Your task to perform on an android device: open app "Gboard" (install if not already installed) Image 0: 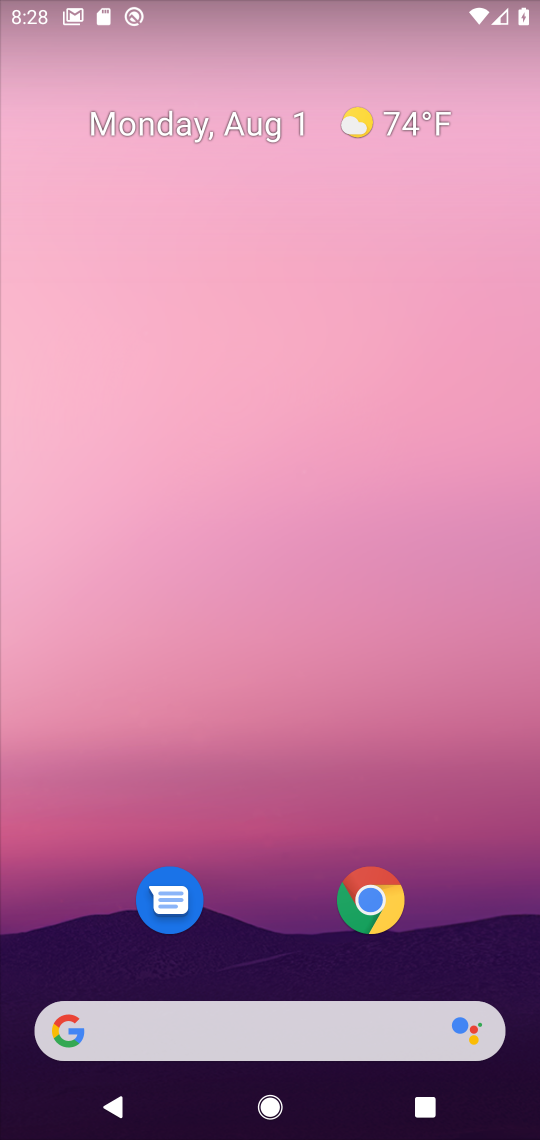
Step 0: drag from (282, 970) to (188, 127)
Your task to perform on an android device: open app "Gboard" (install if not already installed) Image 1: 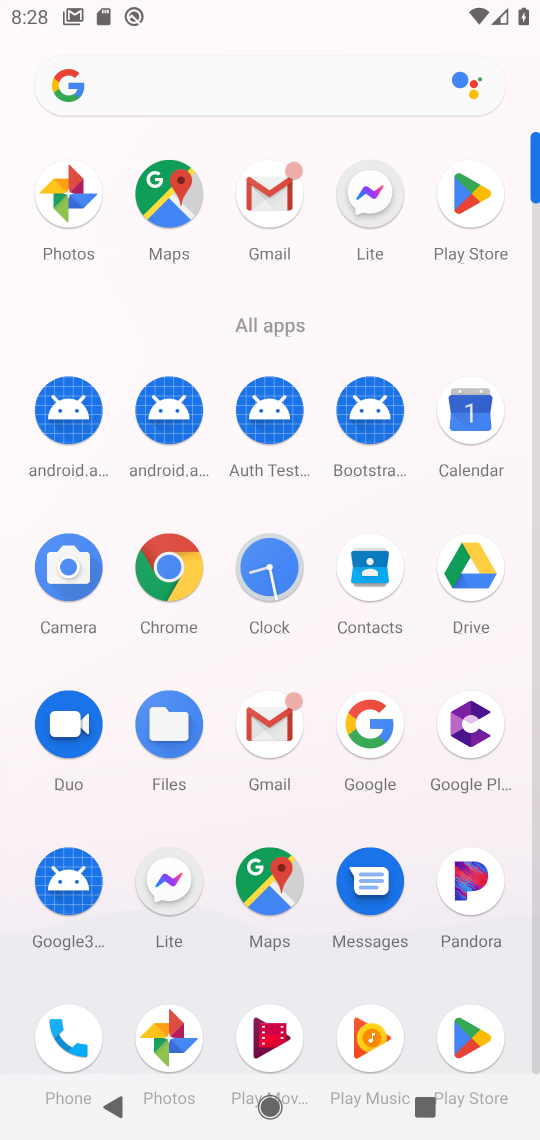
Step 1: click (453, 1052)
Your task to perform on an android device: open app "Gboard" (install if not already installed) Image 2: 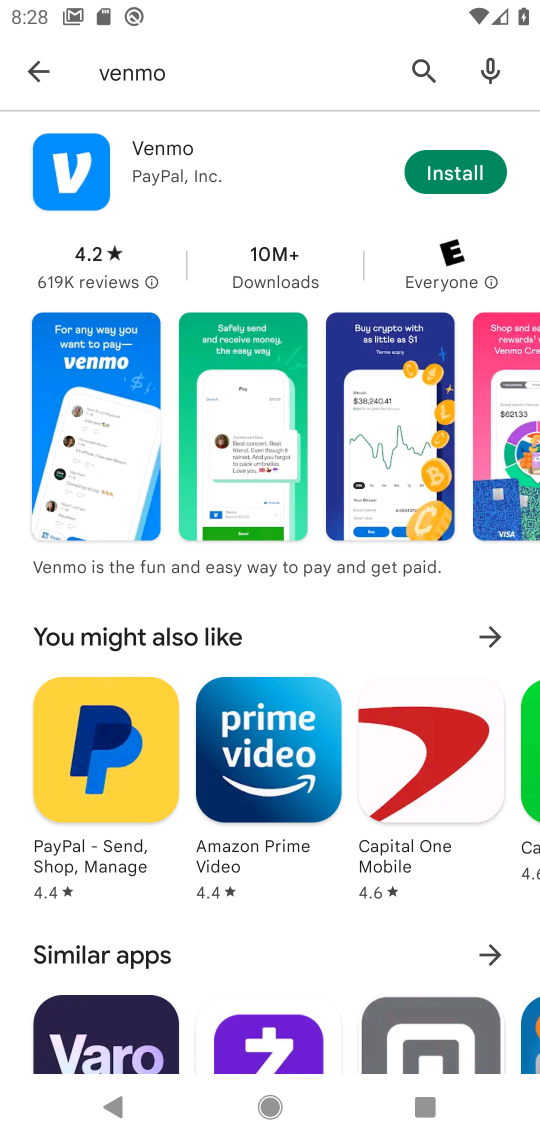
Step 2: click (43, 63)
Your task to perform on an android device: open app "Gboard" (install if not already installed) Image 3: 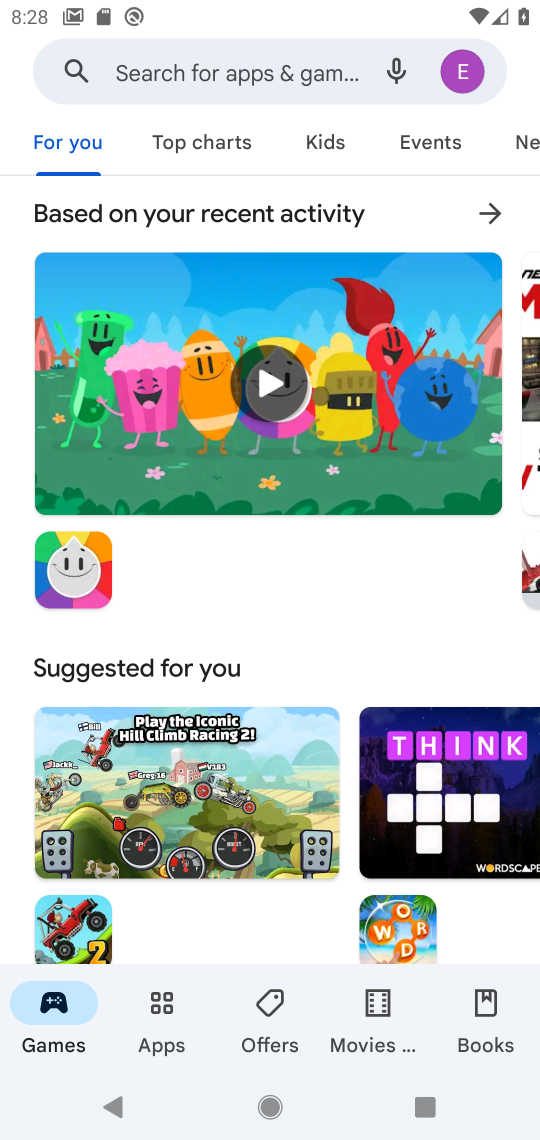
Step 3: click (162, 87)
Your task to perform on an android device: open app "Gboard" (install if not already installed) Image 4: 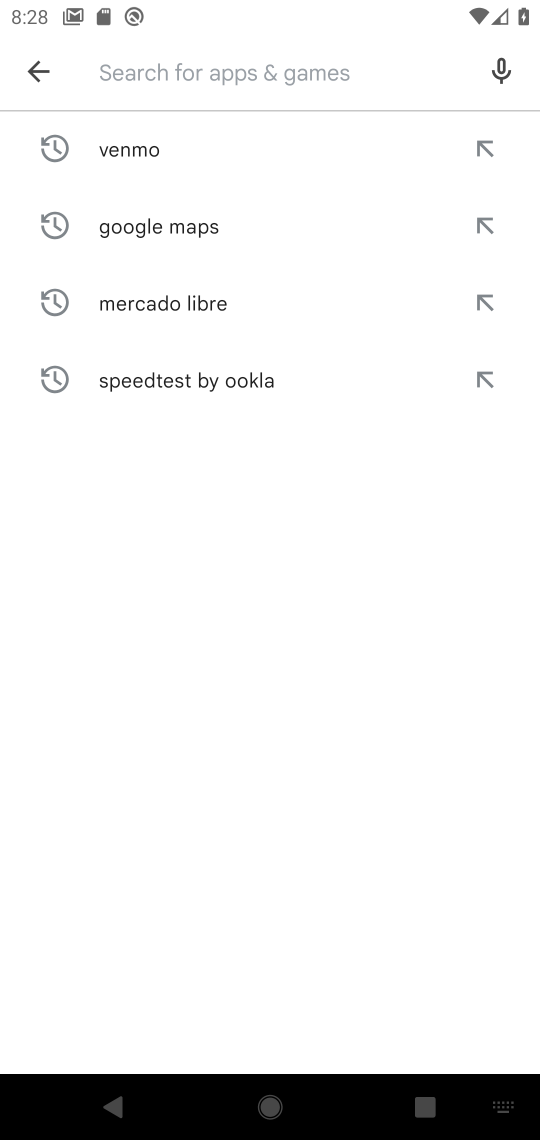
Step 4: type "Gboard"
Your task to perform on an android device: open app "Gboard" (install if not already installed) Image 5: 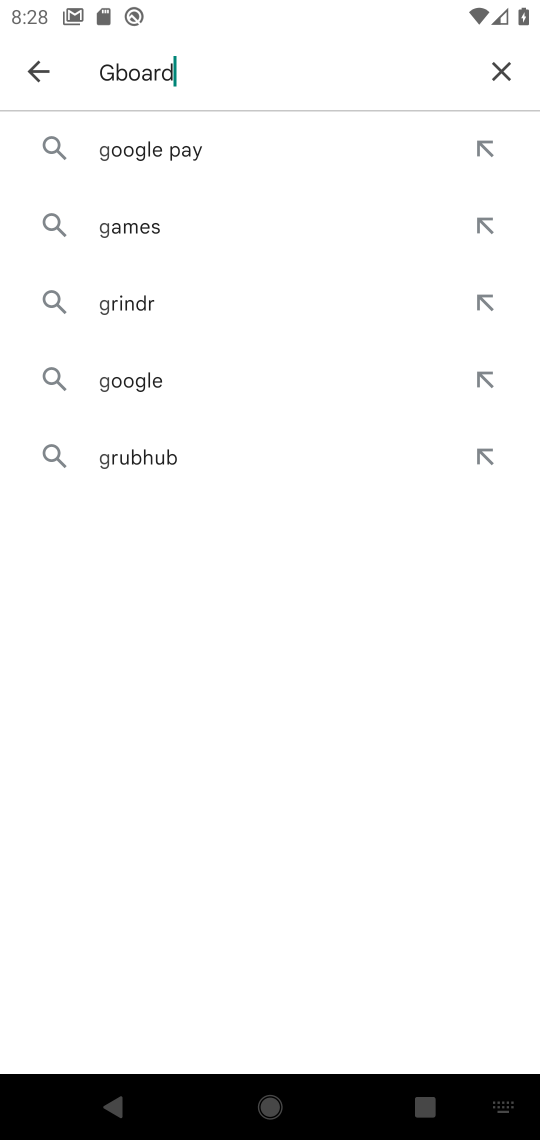
Step 5: type ""
Your task to perform on an android device: open app "Gboard" (install if not already installed) Image 6: 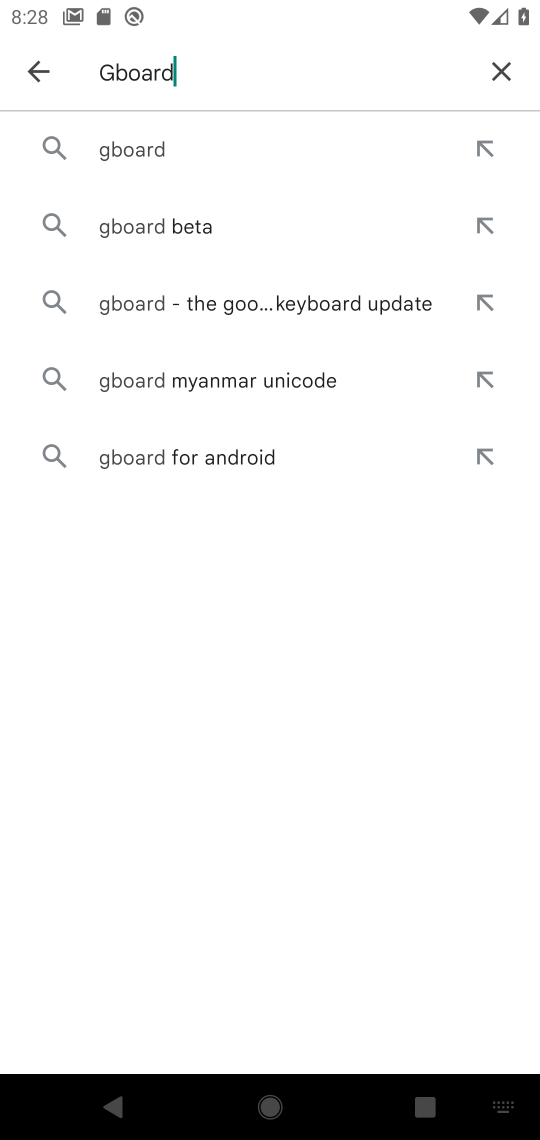
Step 6: click (150, 144)
Your task to perform on an android device: open app "Gboard" (install if not already installed) Image 7: 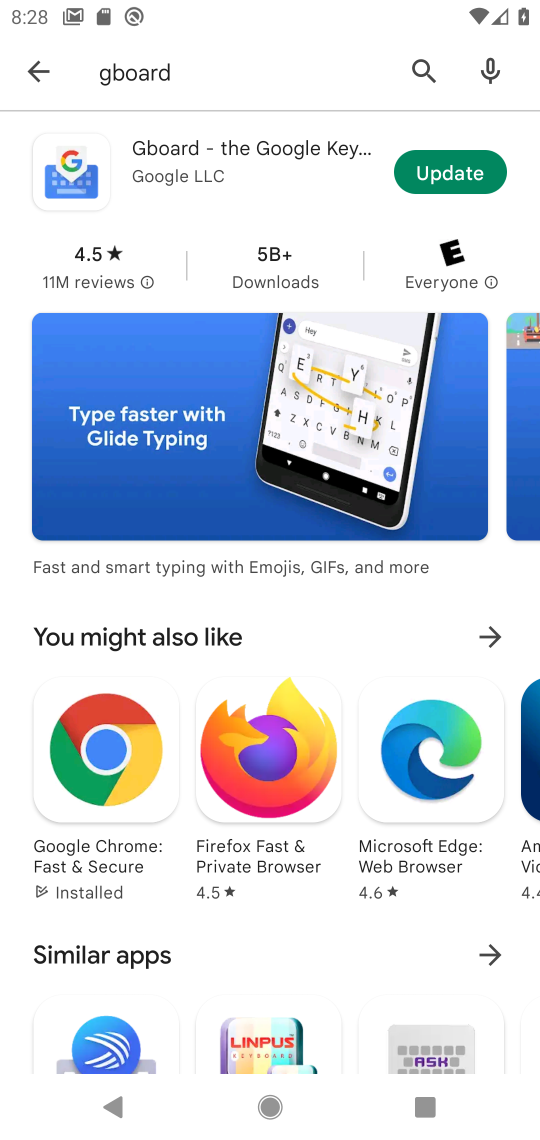
Step 7: click (305, 153)
Your task to perform on an android device: open app "Gboard" (install if not already installed) Image 8: 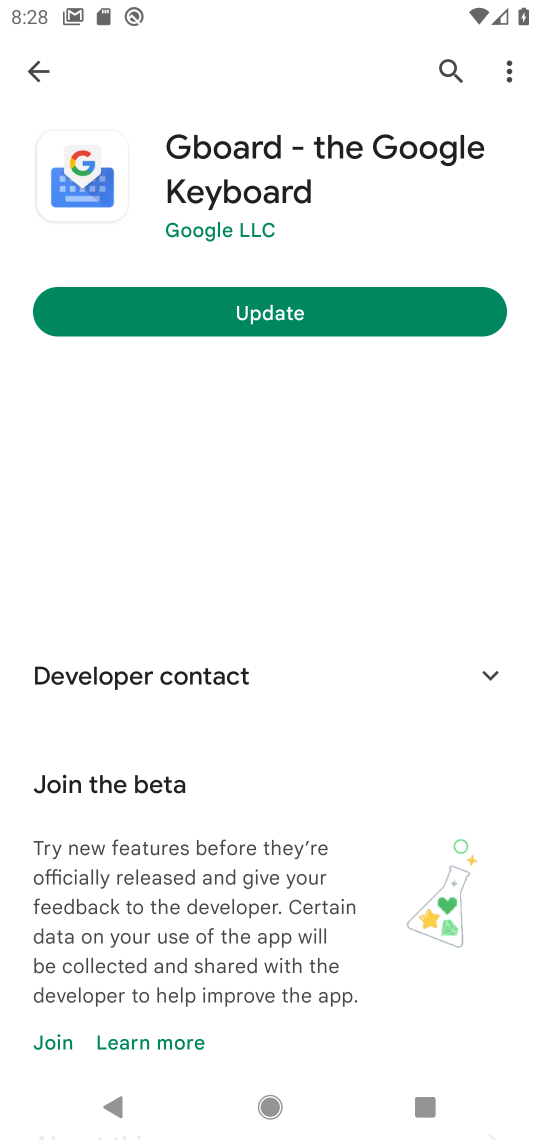
Step 8: click (259, 309)
Your task to perform on an android device: open app "Gboard" (install if not already installed) Image 9: 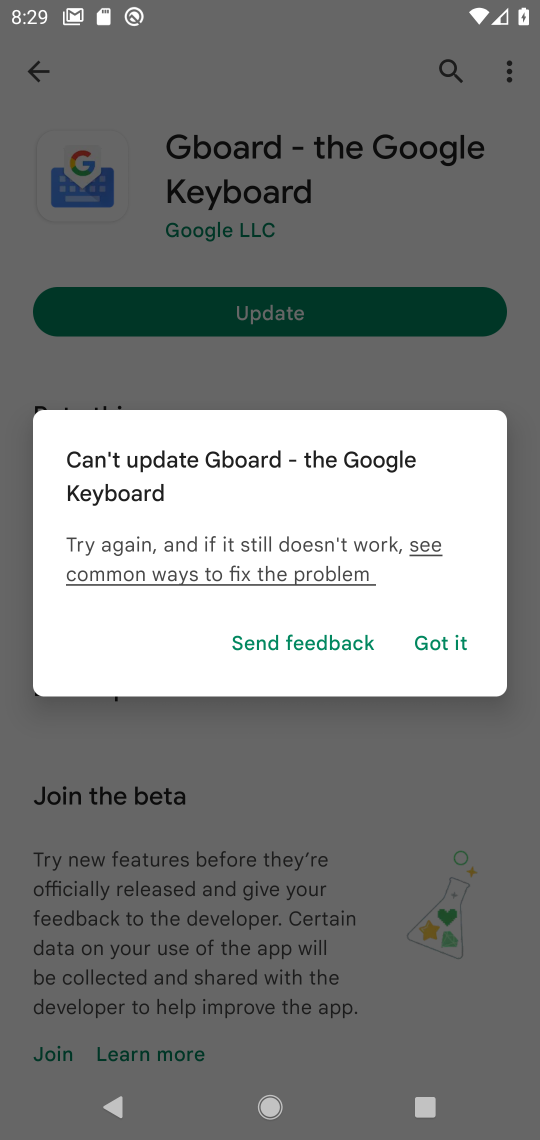
Step 9: click (454, 630)
Your task to perform on an android device: open app "Gboard" (install if not already installed) Image 10: 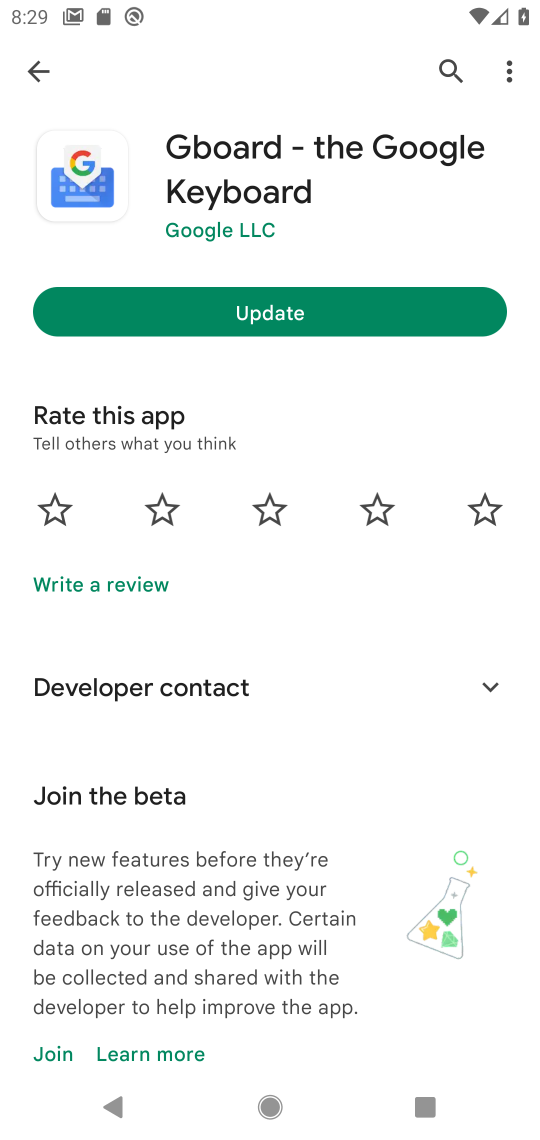
Step 10: click (338, 307)
Your task to perform on an android device: open app "Gboard" (install if not already installed) Image 11: 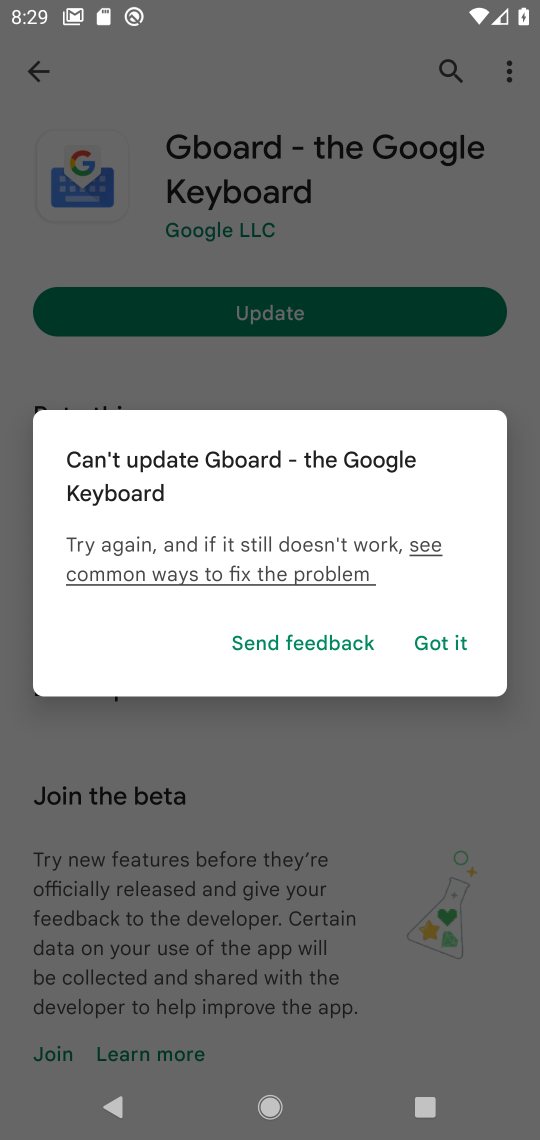
Step 11: click (461, 653)
Your task to perform on an android device: open app "Gboard" (install if not already installed) Image 12: 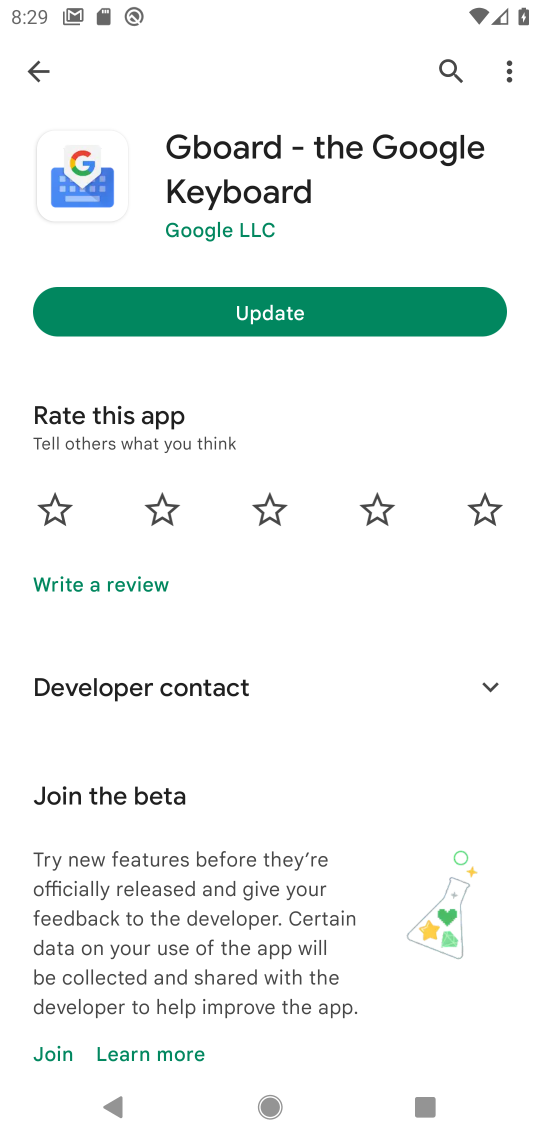
Step 12: task complete